Your task to perform on an android device: Open Chrome and go to the settings page Image 0: 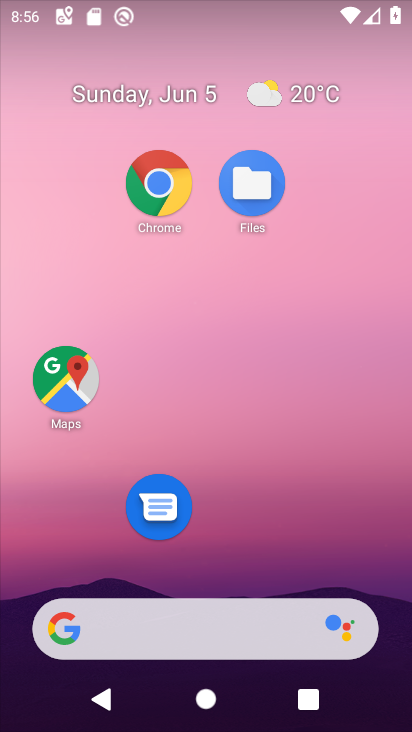
Step 0: drag from (225, 590) to (111, 122)
Your task to perform on an android device: Open Chrome and go to the settings page Image 1: 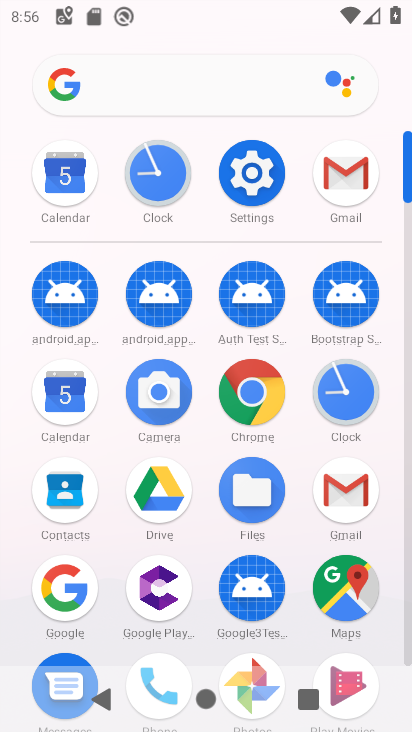
Step 1: click (239, 374)
Your task to perform on an android device: Open Chrome and go to the settings page Image 2: 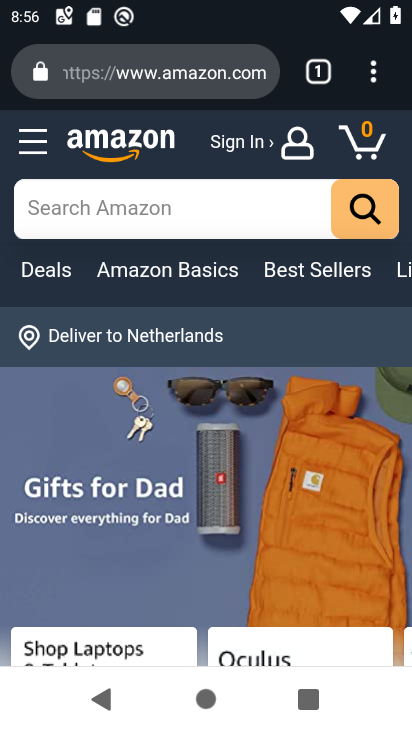
Step 2: click (375, 72)
Your task to perform on an android device: Open Chrome and go to the settings page Image 3: 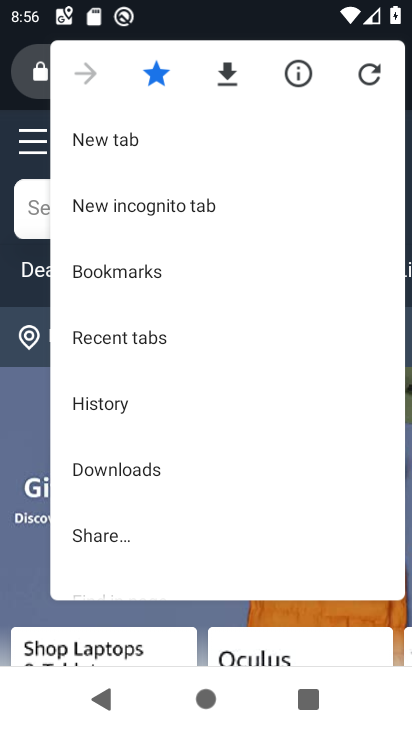
Step 3: drag from (253, 488) to (238, 76)
Your task to perform on an android device: Open Chrome and go to the settings page Image 4: 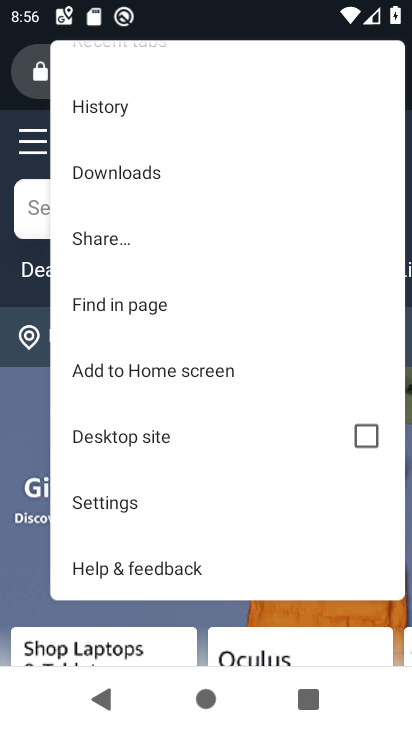
Step 4: click (130, 504)
Your task to perform on an android device: Open Chrome and go to the settings page Image 5: 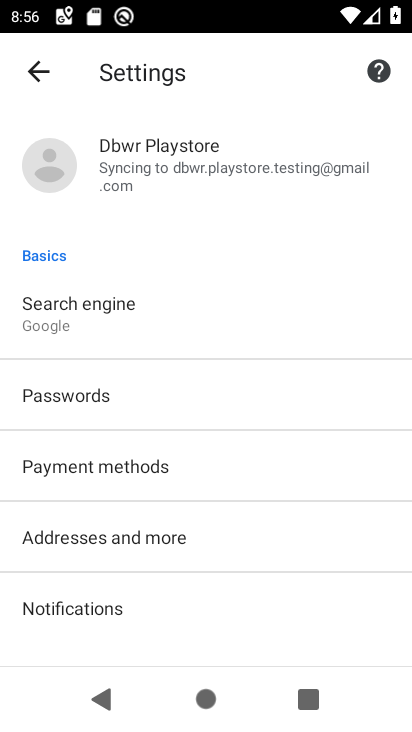
Step 5: task complete